Your task to perform on an android device: Go to eBay Image 0: 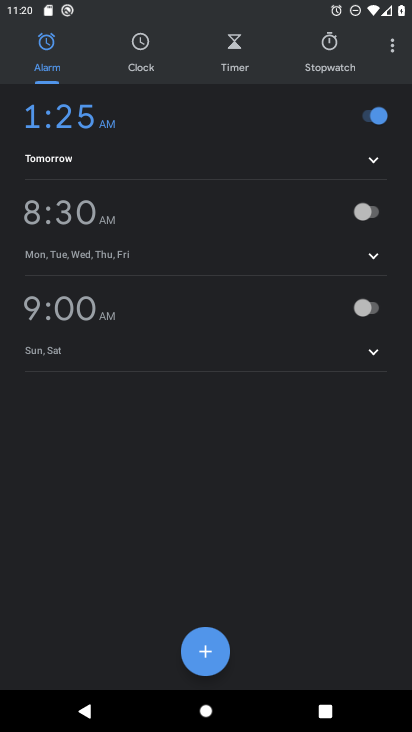
Step 0: press home button
Your task to perform on an android device: Go to eBay Image 1: 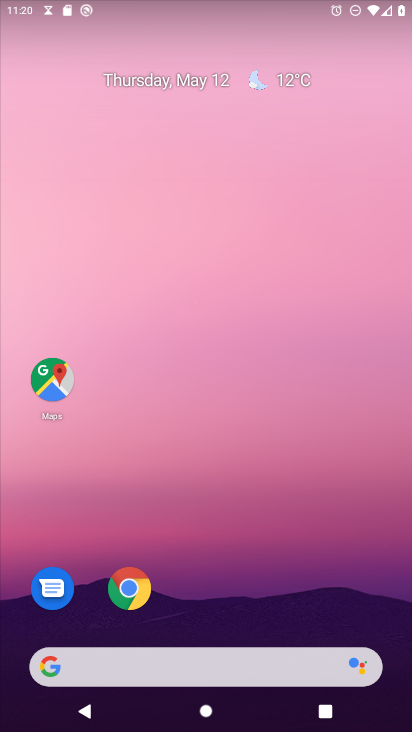
Step 1: click (127, 587)
Your task to perform on an android device: Go to eBay Image 2: 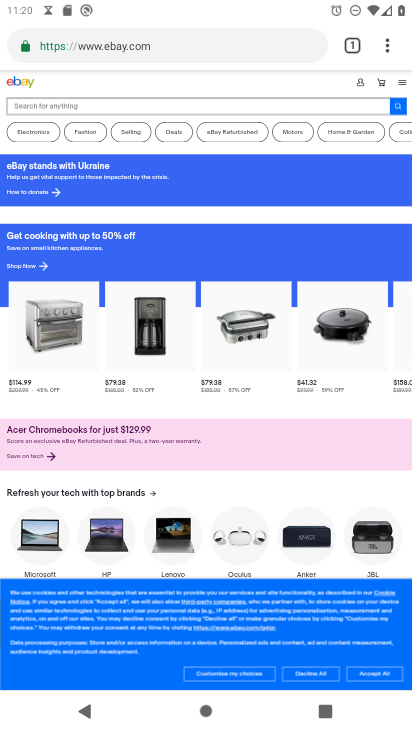
Step 2: click (196, 49)
Your task to perform on an android device: Go to eBay Image 3: 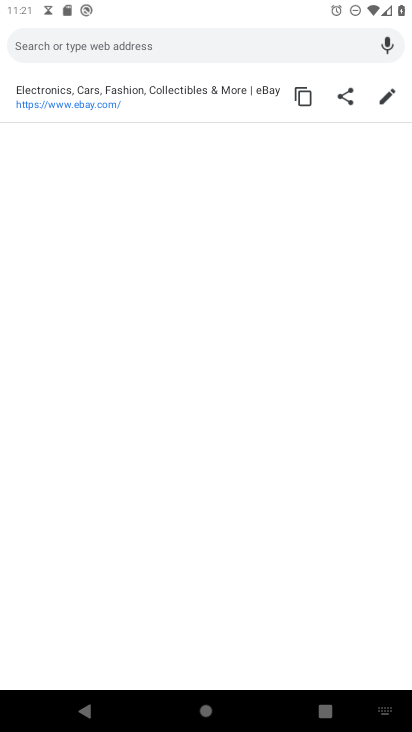
Step 3: type "eBay"
Your task to perform on an android device: Go to eBay Image 4: 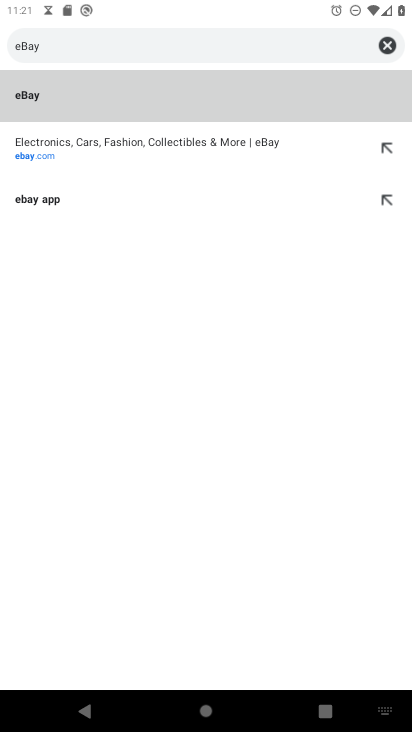
Step 4: click (104, 108)
Your task to perform on an android device: Go to eBay Image 5: 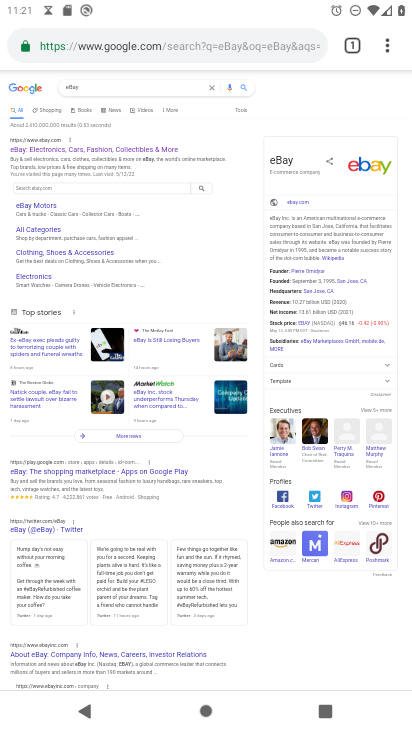
Step 5: click (25, 152)
Your task to perform on an android device: Go to eBay Image 6: 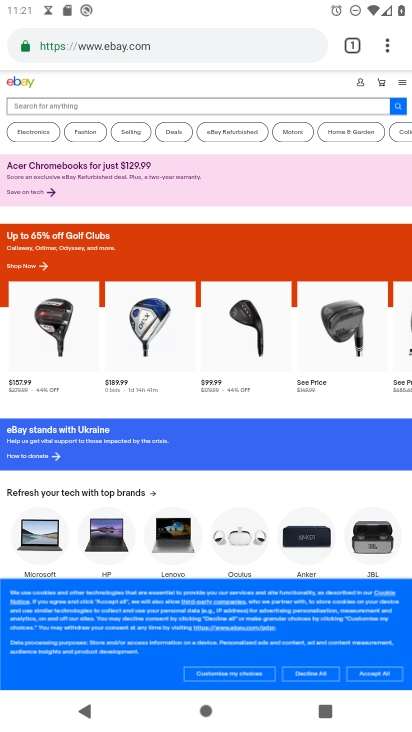
Step 6: task complete